Your task to perform on an android device: move an email to a new category in the gmail app Image 0: 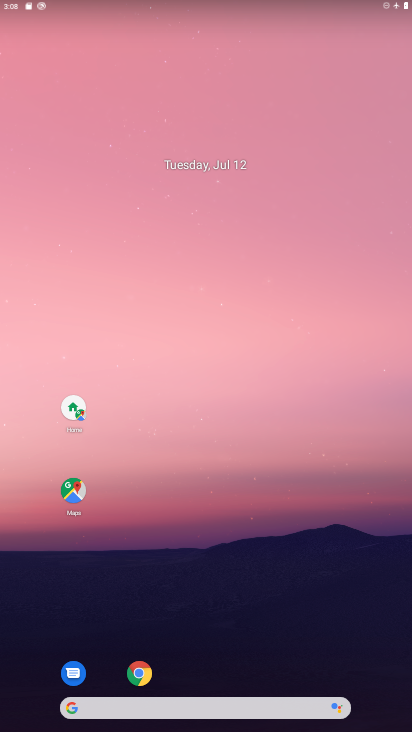
Step 0: drag from (220, 671) to (213, 462)
Your task to perform on an android device: move an email to a new category in the gmail app Image 1: 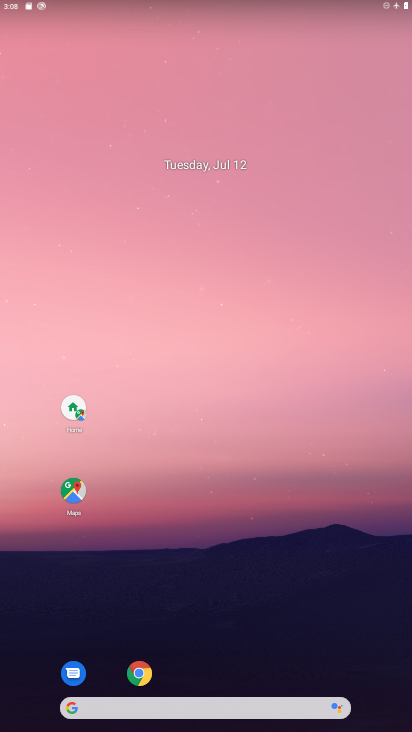
Step 1: drag from (261, 554) to (263, 209)
Your task to perform on an android device: move an email to a new category in the gmail app Image 2: 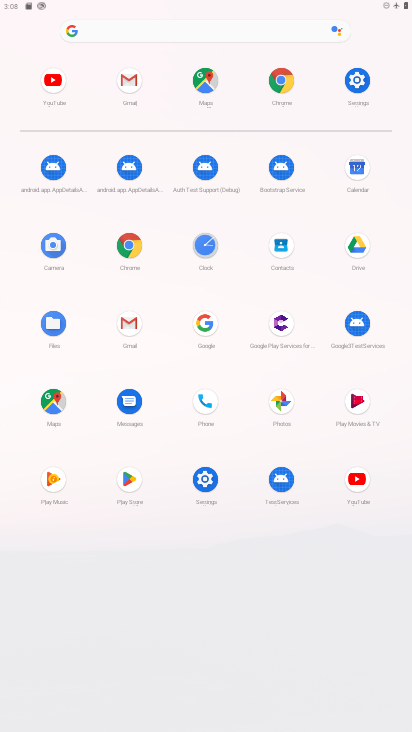
Step 2: click (132, 317)
Your task to perform on an android device: move an email to a new category in the gmail app Image 3: 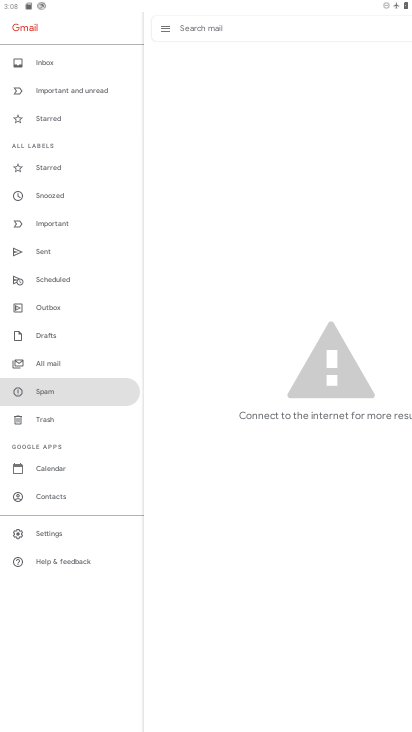
Step 3: click (46, 357)
Your task to perform on an android device: move an email to a new category in the gmail app Image 4: 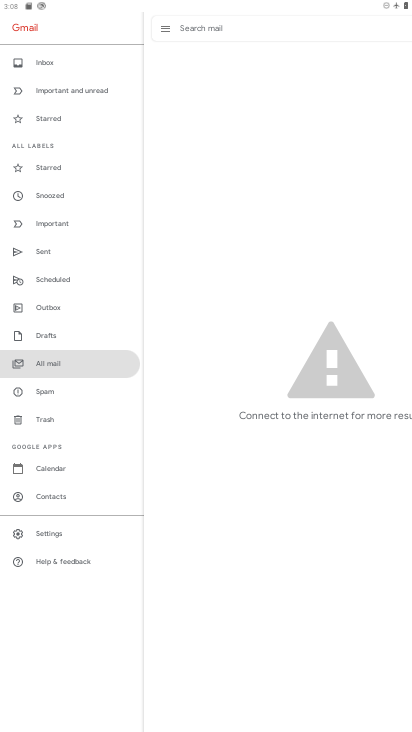
Step 4: task complete